Your task to perform on an android device: turn notification dots off Image 0: 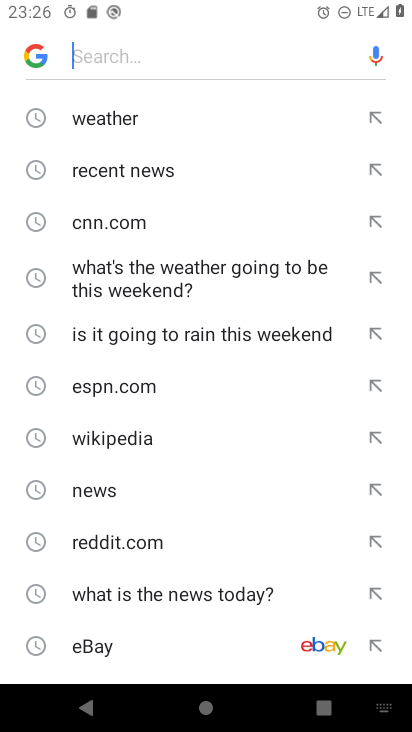
Step 0: press home button
Your task to perform on an android device: turn notification dots off Image 1: 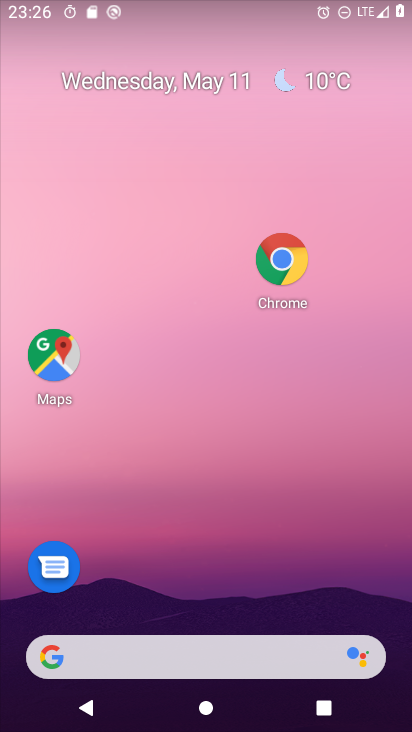
Step 1: drag from (191, 650) to (353, 122)
Your task to perform on an android device: turn notification dots off Image 2: 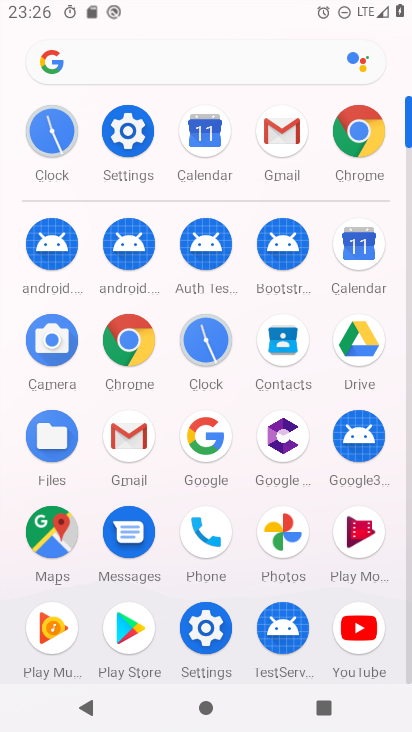
Step 2: click (119, 139)
Your task to perform on an android device: turn notification dots off Image 3: 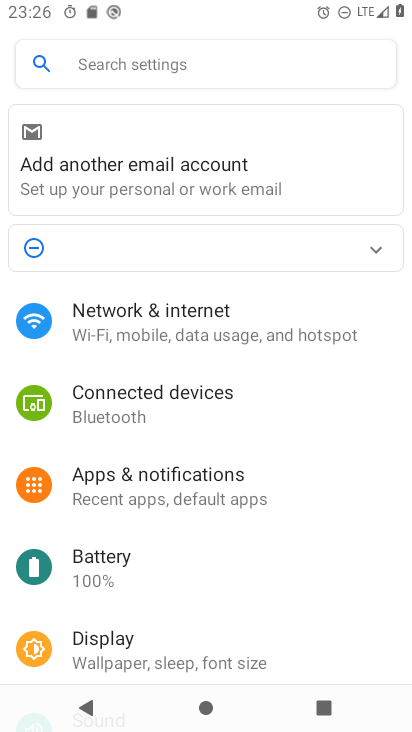
Step 3: click (213, 484)
Your task to perform on an android device: turn notification dots off Image 4: 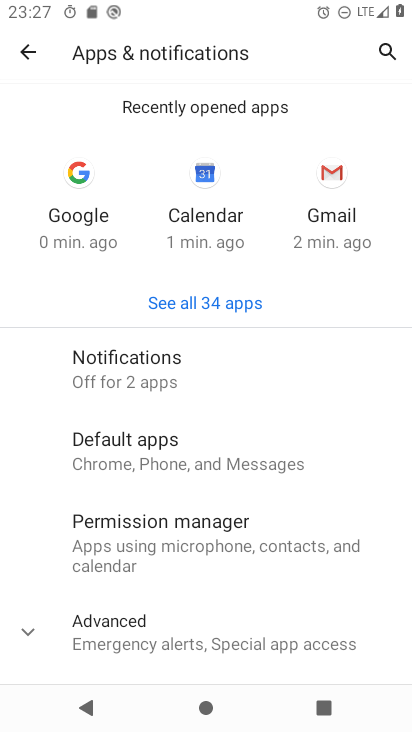
Step 4: click (154, 384)
Your task to perform on an android device: turn notification dots off Image 5: 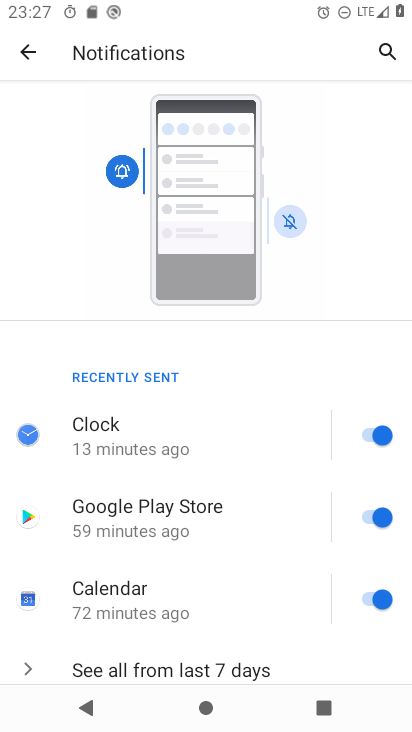
Step 5: drag from (189, 635) to (313, 171)
Your task to perform on an android device: turn notification dots off Image 6: 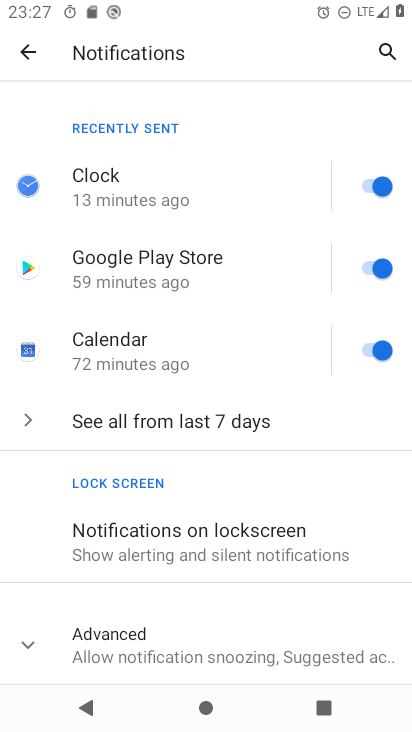
Step 6: click (146, 652)
Your task to perform on an android device: turn notification dots off Image 7: 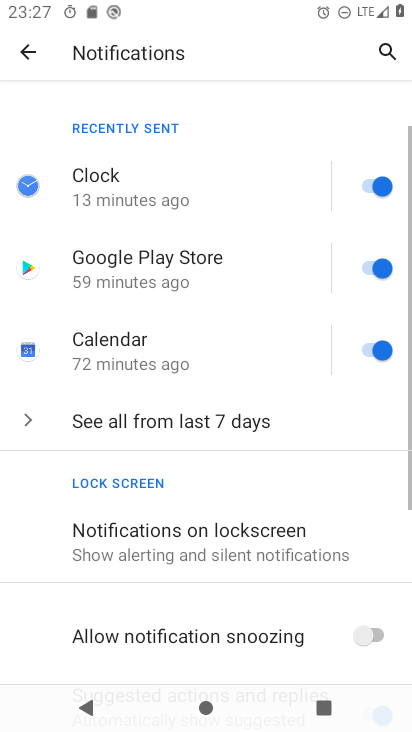
Step 7: drag from (223, 612) to (316, 127)
Your task to perform on an android device: turn notification dots off Image 8: 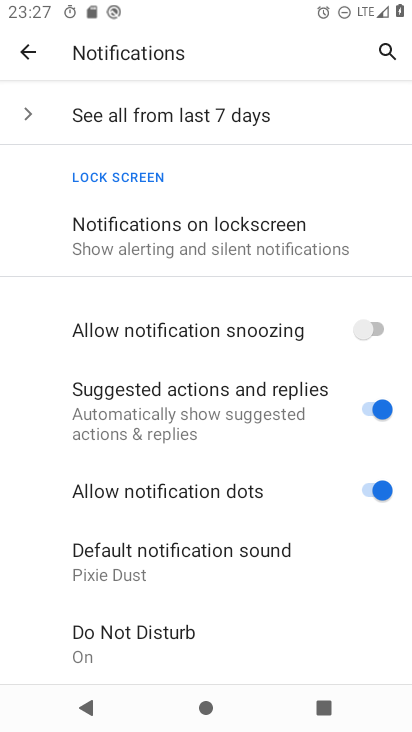
Step 8: click (363, 489)
Your task to perform on an android device: turn notification dots off Image 9: 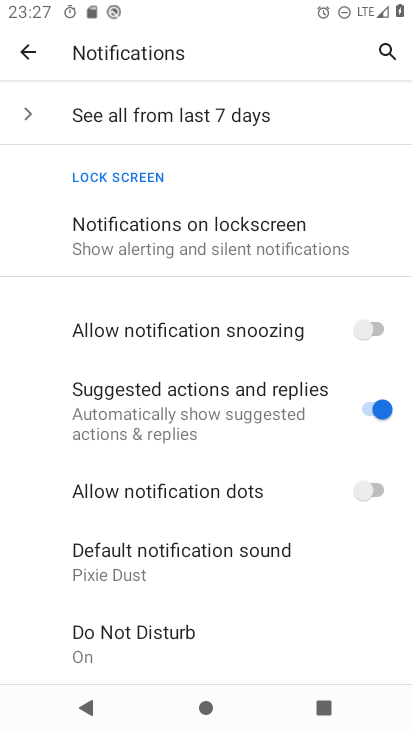
Step 9: task complete